Your task to perform on an android device: Open CNN.com Image 0: 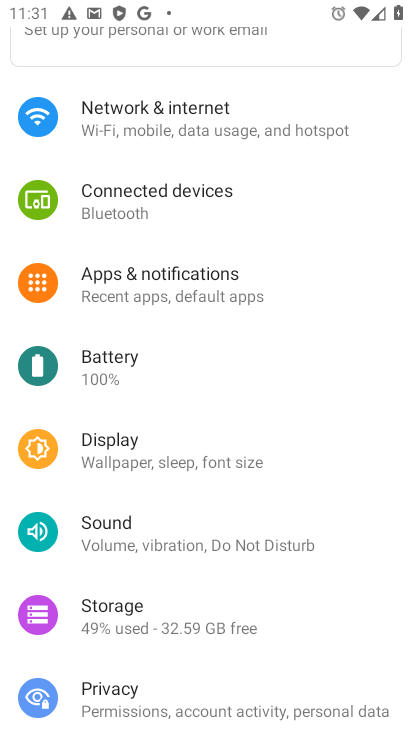
Step 0: press back button
Your task to perform on an android device: Open CNN.com Image 1: 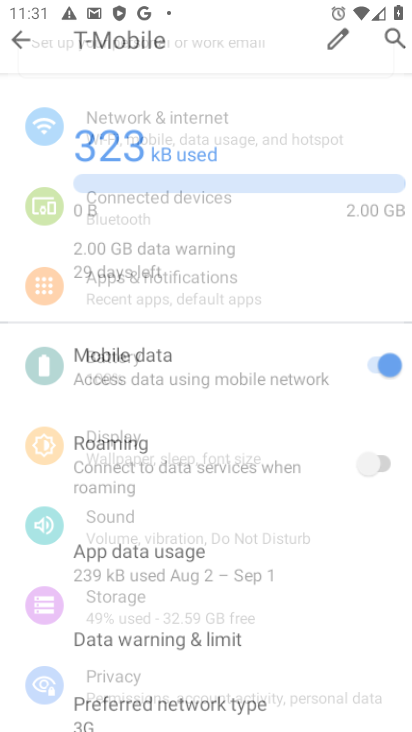
Step 1: press home button
Your task to perform on an android device: Open CNN.com Image 2: 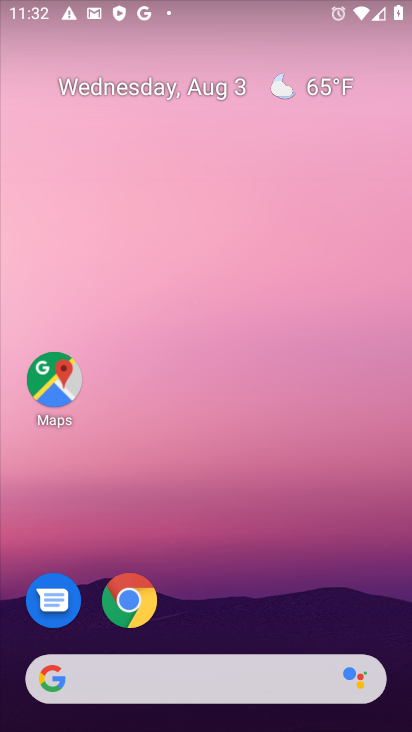
Step 2: click (147, 599)
Your task to perform on an android device: Open CNN.com Image 3: 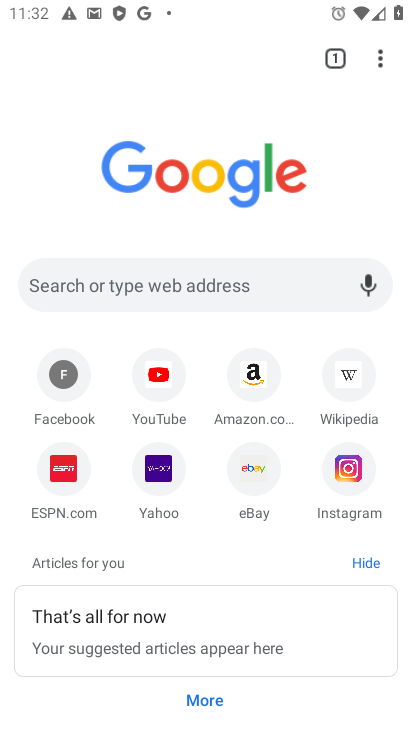
Step 3: click (189, 291)
Your task to perform on an android device: Open CNN.com Image 4: 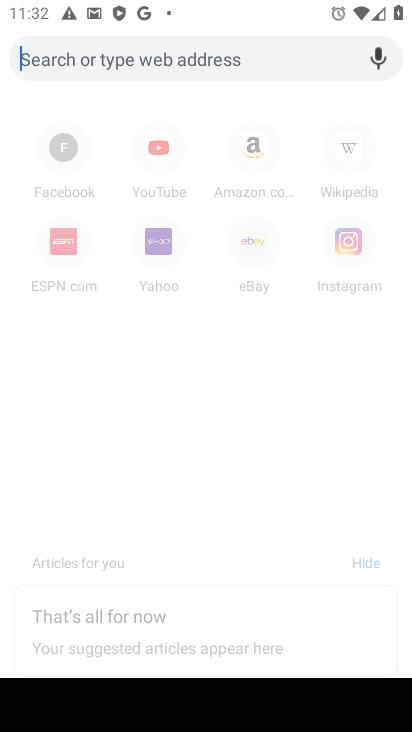
Step 4: type "CNN.com"
Your task to perform on an android device: Open CNN.com Image 5: 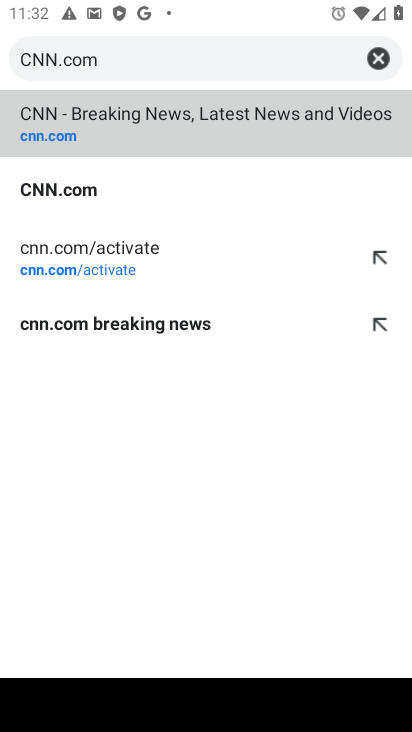
Step 5: click (125, 141)
Your task to perform on an android device: Open CNN.com Image 6: 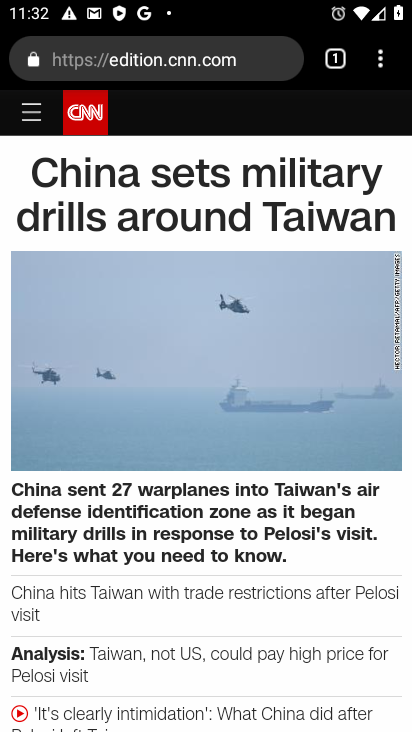
Step 6: task complete